Your task to perform on an android device: Open accessibility settings Image 0: 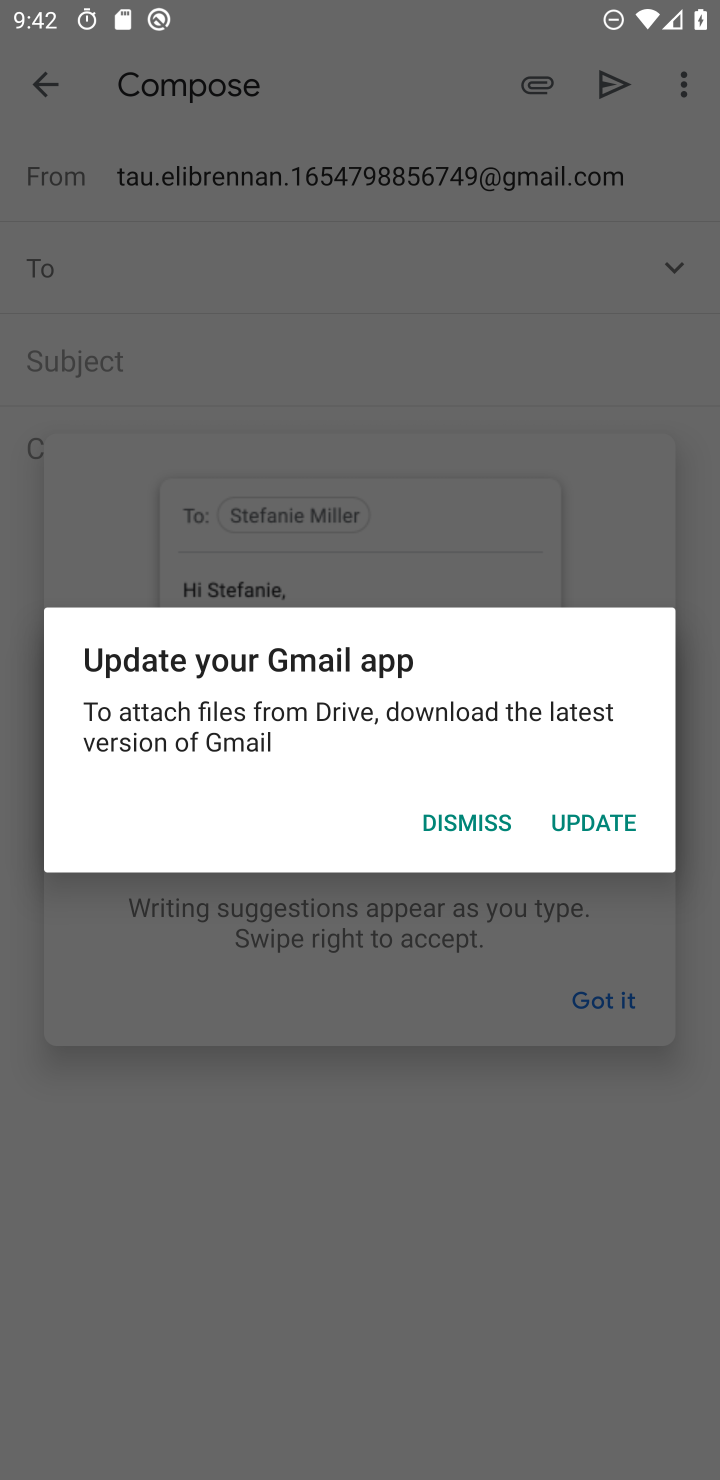
Step 0: press home button
Your task to perform on an android device: Open accessibility settings Image 1: 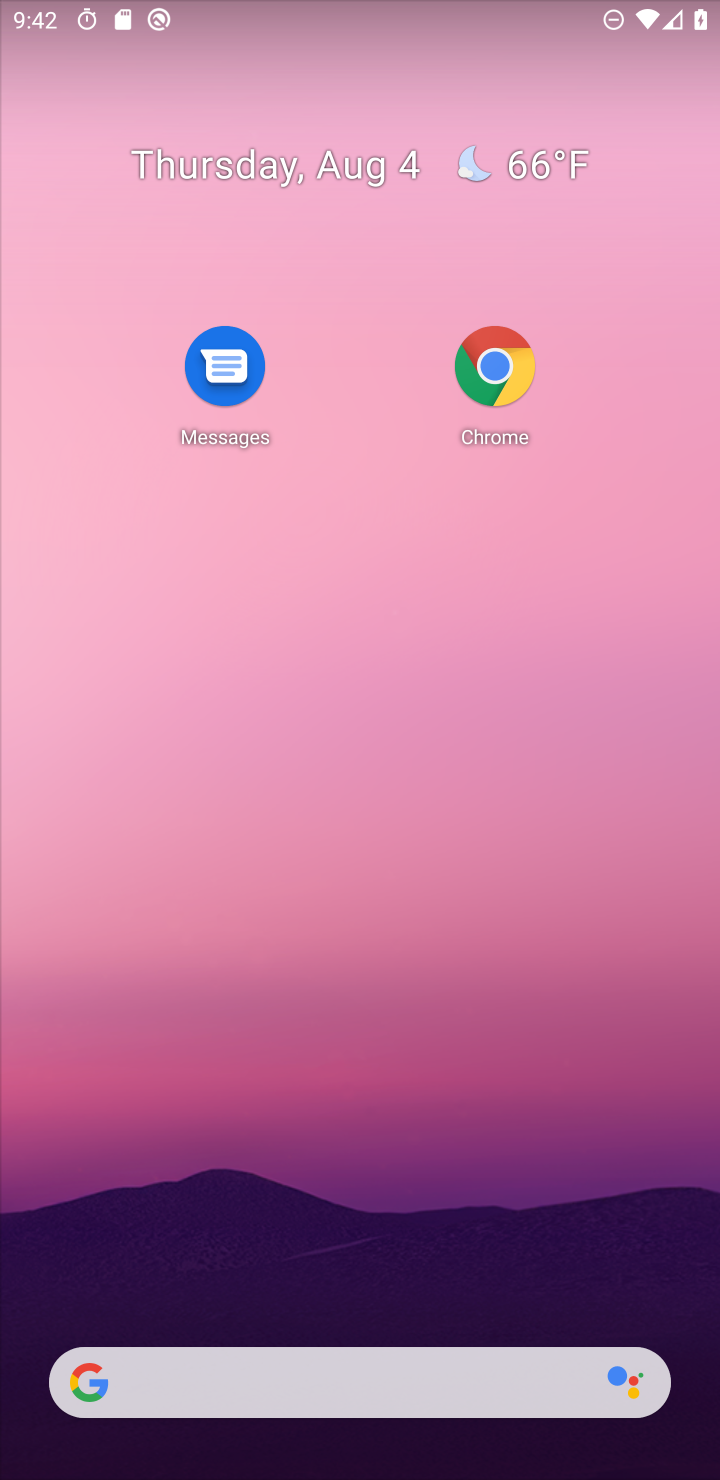
Step 1: drag from (377, 1413) to (348, 59)
Your task to perform on an android device: Open accessibility settings Image 2: 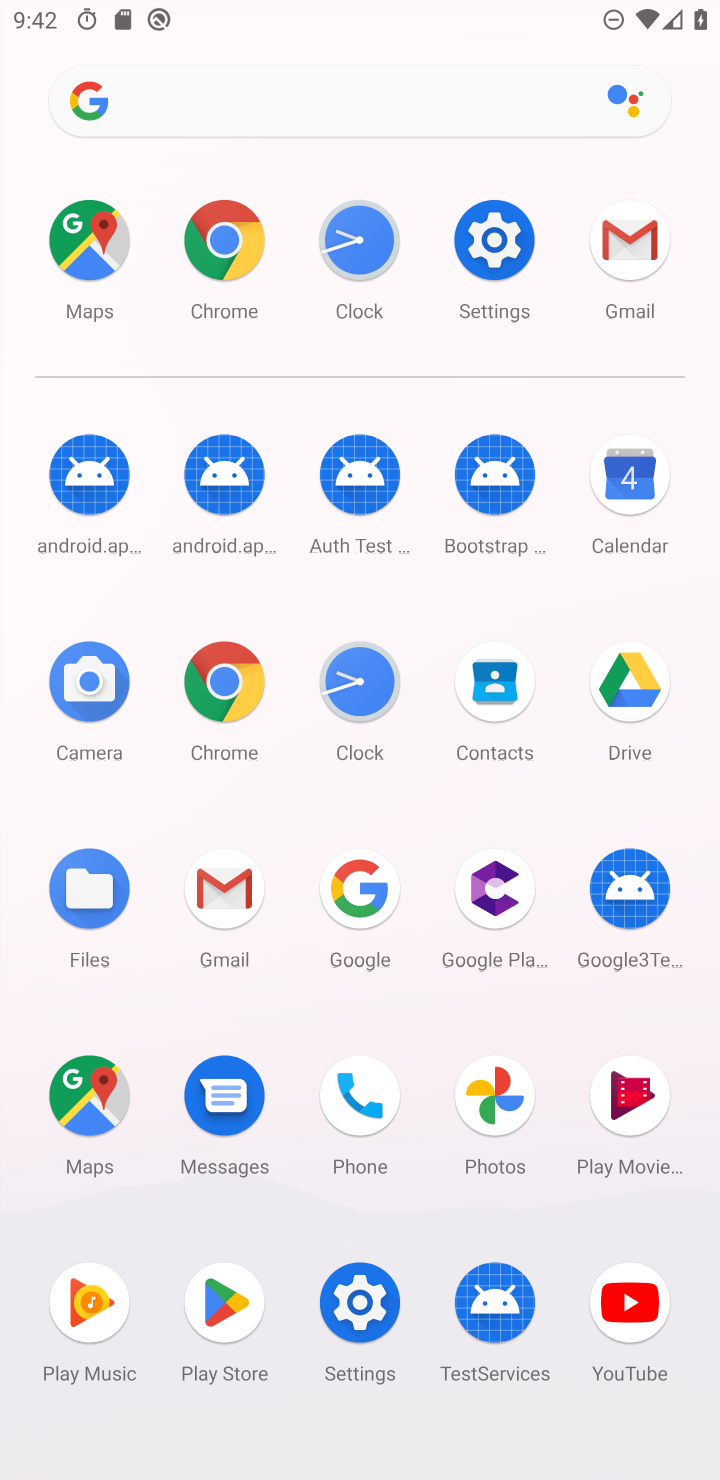
Step 2: click (454, 248)
Your task to perform on an android device: Open accessibility settings Image 3: 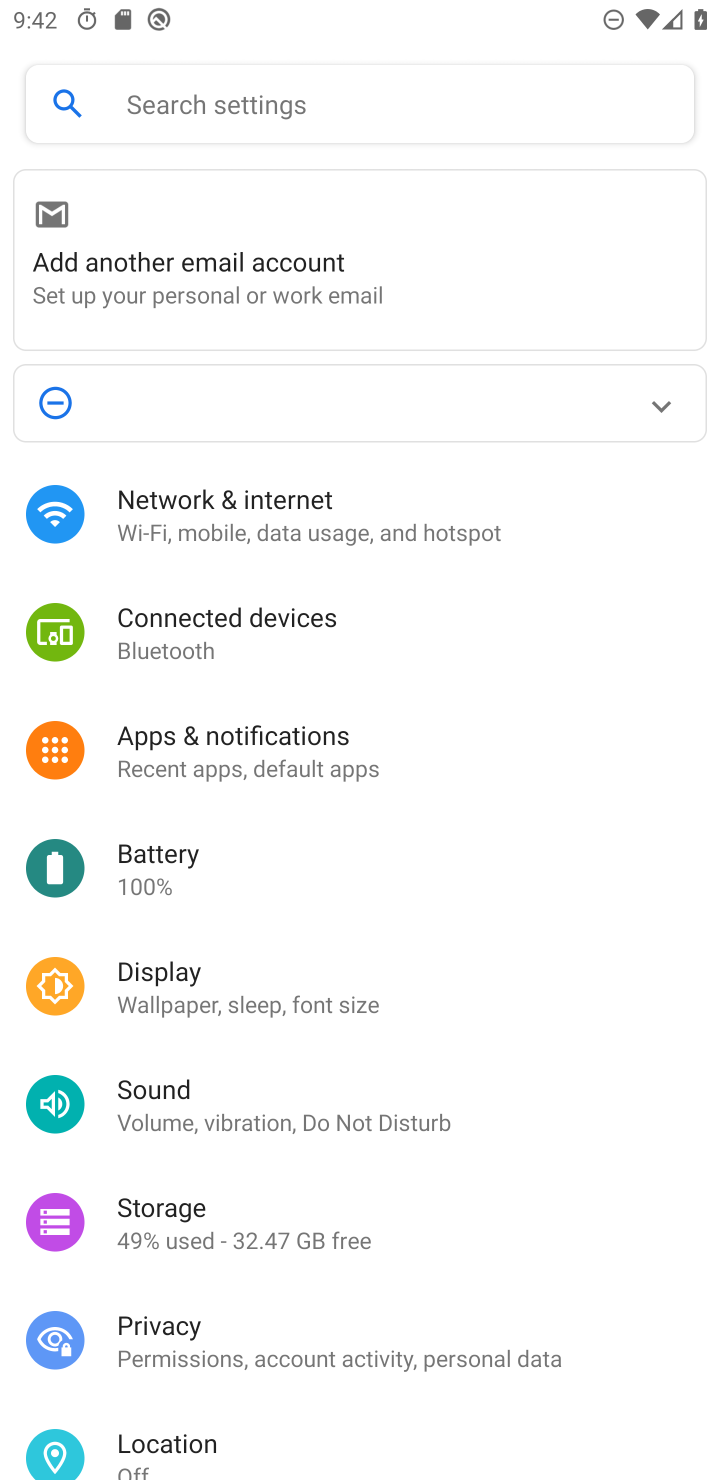
Step 3: click (152, 113)
Your task to perform on an android device: Open accessibility settings Image 4: 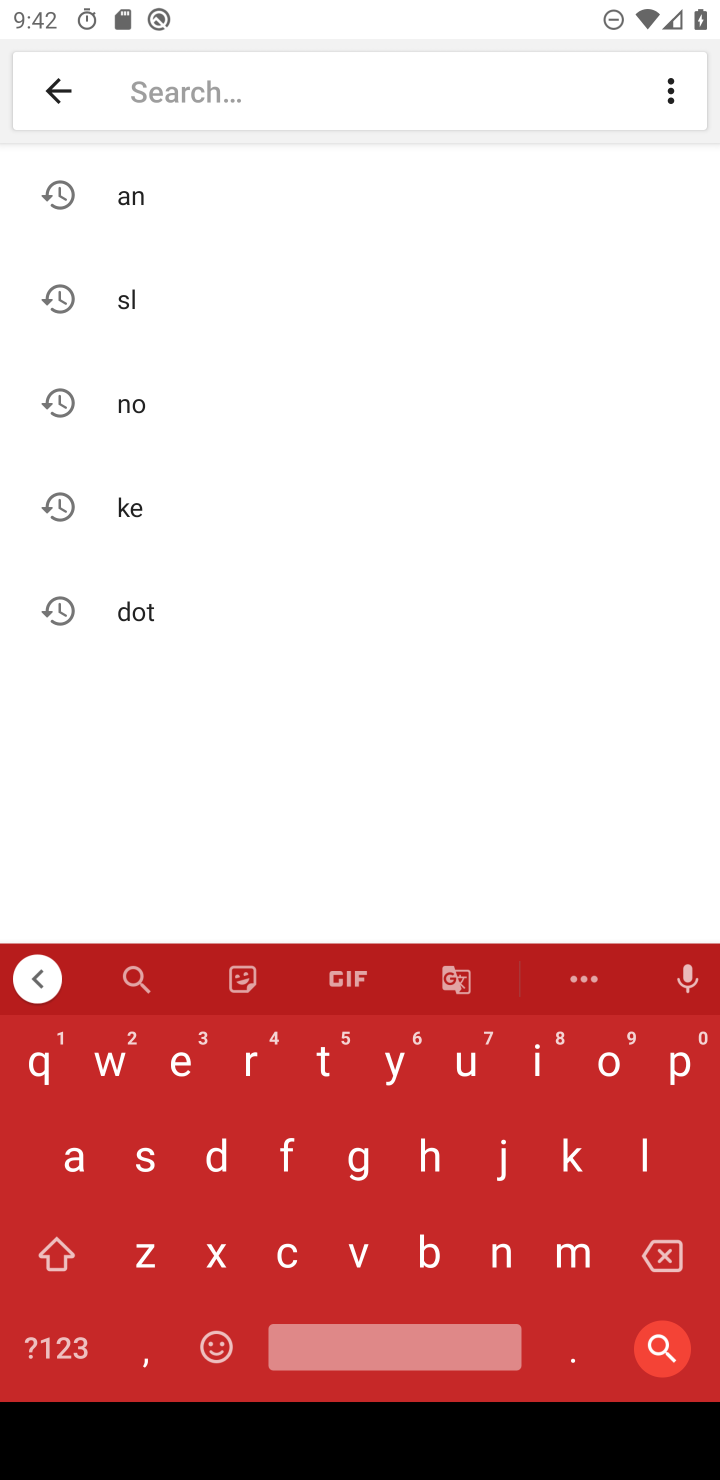
Step 4: click (59, 1176)
Your task to perform on an android device: Open accessibility settings Image 5: 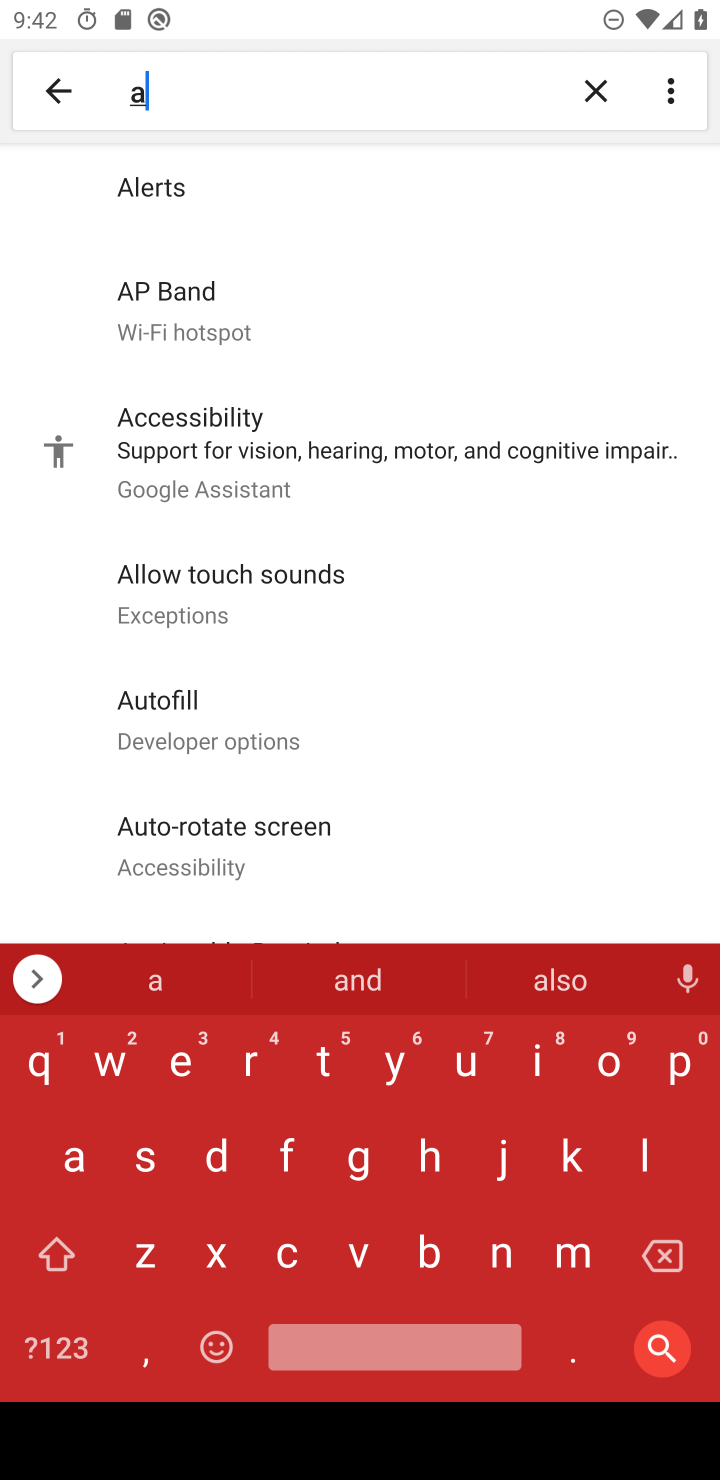
Step 5: click (297, 1266)
Your task to perform on an android device: Open accessibility settings Image 6: 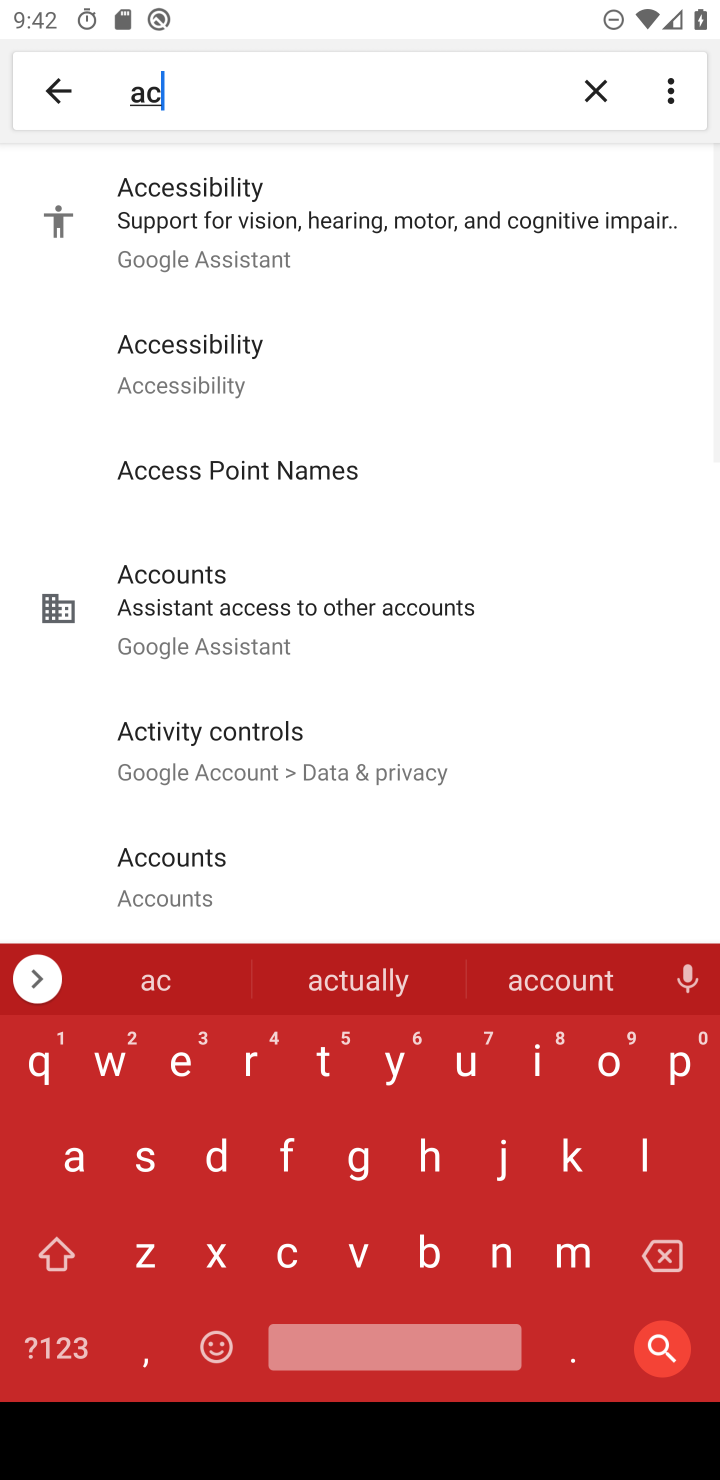
Step 6: click (240, 222)
Your task to perform on an android device: Open accessibility settings Image 7: 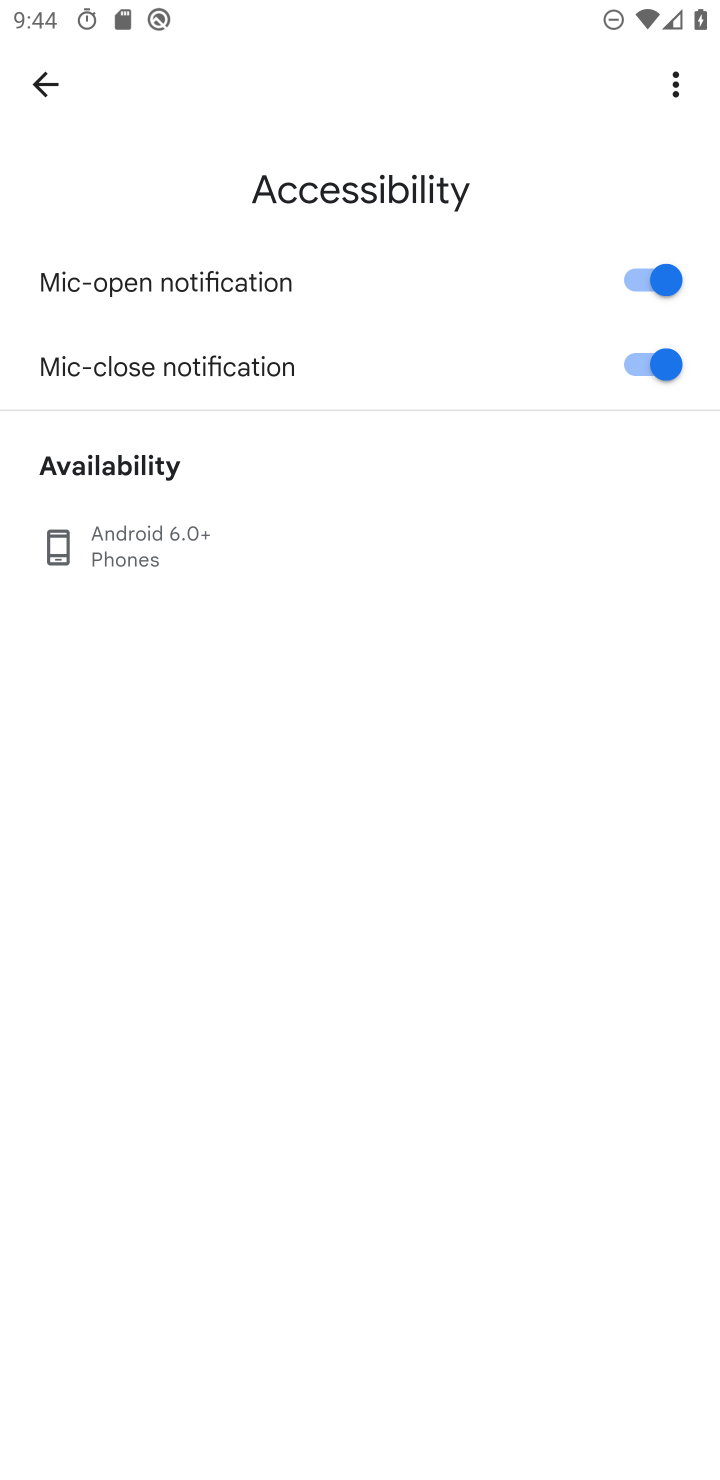
Step 7: task complete